Your task to perform on an android device: Go to sound settings Image 0: 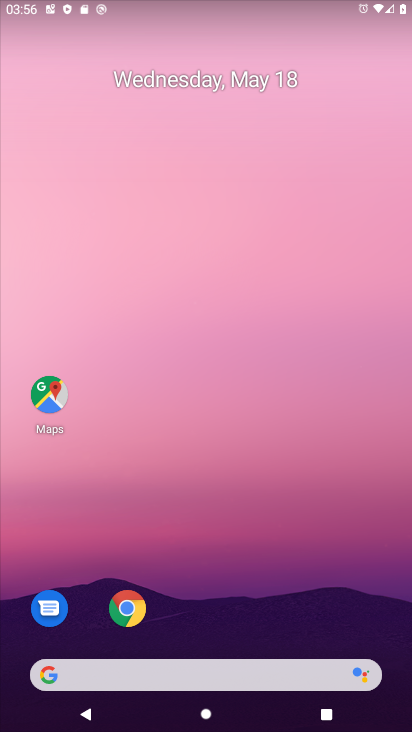
Step 0: drag from (176, 628) to (209, 183)
Your task to perform on an android device: Go to sound settings Image 1: 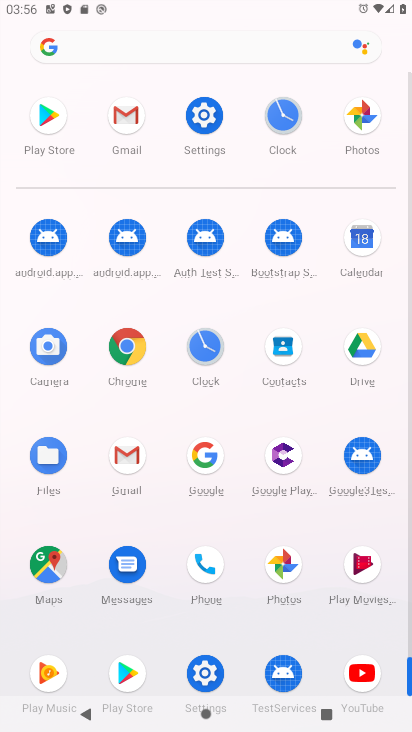
Step 1: click (198, 99)
Your task to perform on an android device: Go to sound settings Image 2: 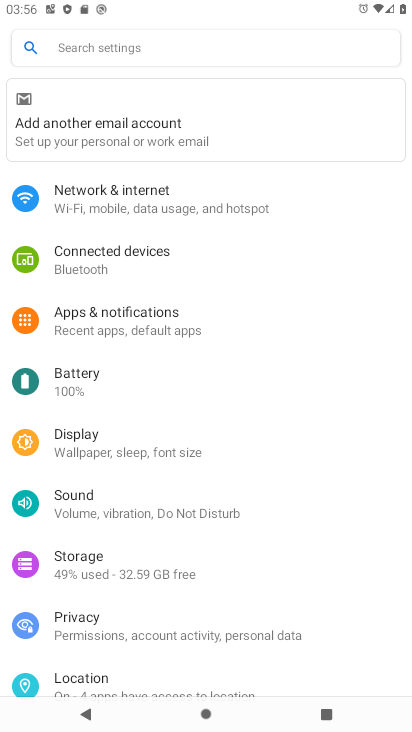
Step 2: click (86, 502)
Your task to perform on an android device: Go to sound settings Image 3: 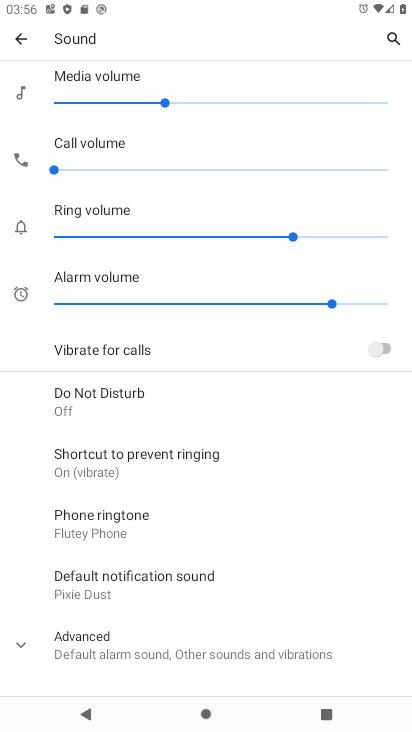
Step 3: task complete